Your task to perform on an android device: toggle javascript in the chrome app Image 0: 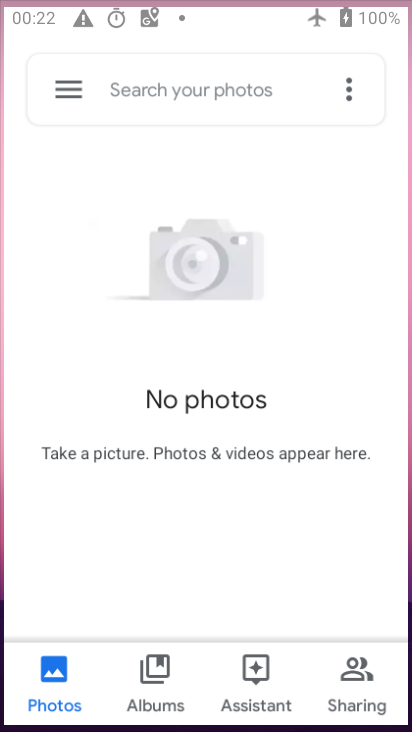
Step 0: drag from (306, 673) to (317, 234)
Your task to perform on an android device: toggle javascript in the chrome app Image 1: 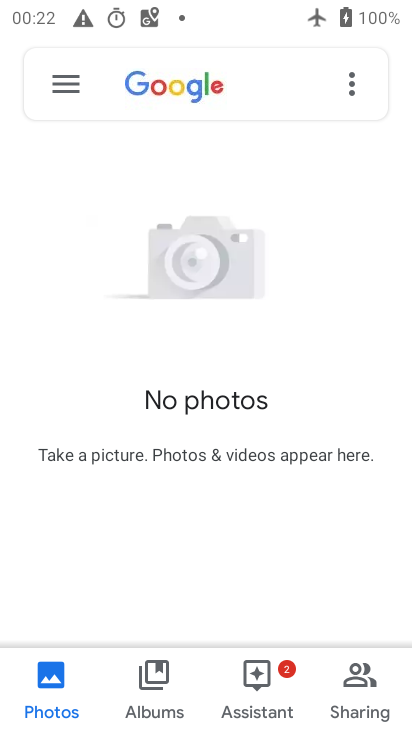
Step 1: press back button
Your task to perform on an android device: toggle javascript in the chrome app Image 2: 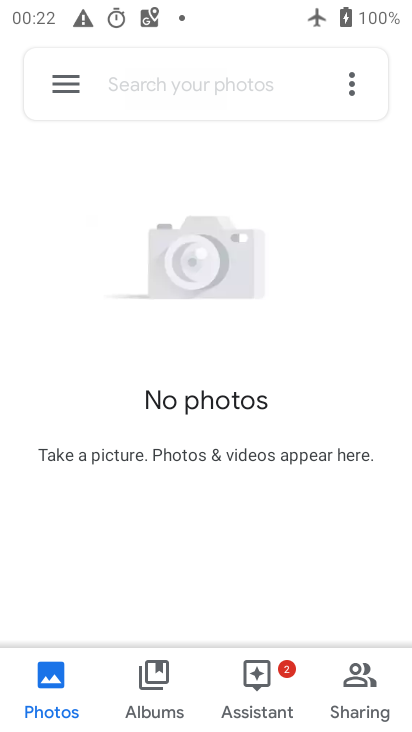
Step 2: press back button
Your task to perform on an android device: toggle javascript in the chrome app Image 3: 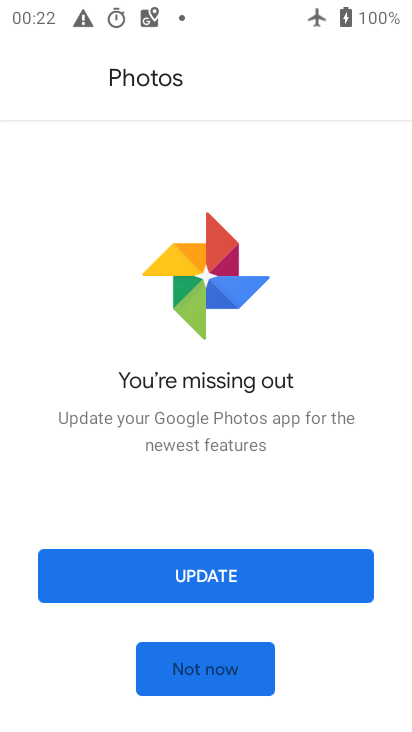
Step 3: press back button
Your task to perform on an android device: toggle javascript in the chrome app Image 4: 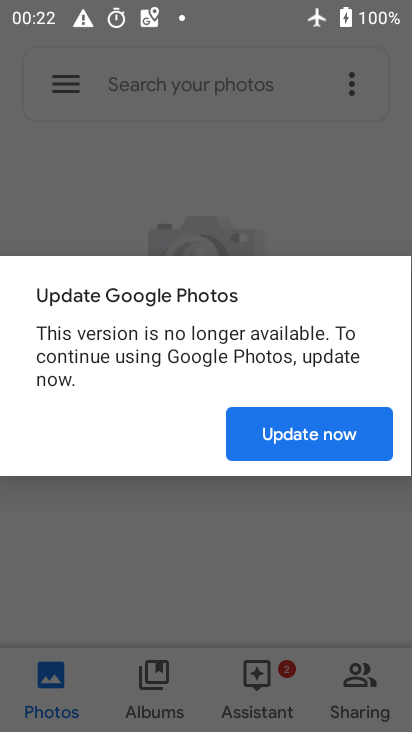
Step 4: press home button
Your task to perform on an android device: toggle javascript in the chrome app Image 5: 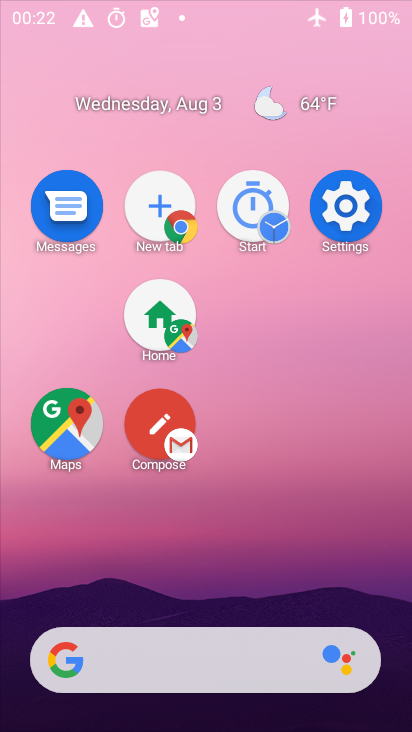
Step 5: press back button
Your task to perform on an android device: toggle javascript in the chrome app Image 6: 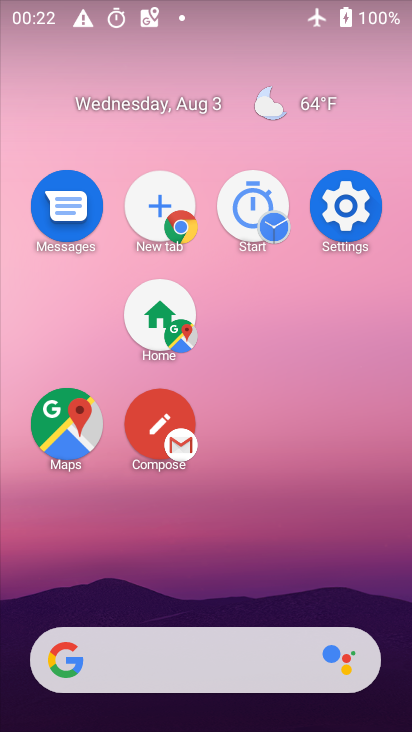
Step 6: drag from (233, 623) to (232, 129)
Your task to perform on an android device: toggle javascript in the chrome app Image 7: 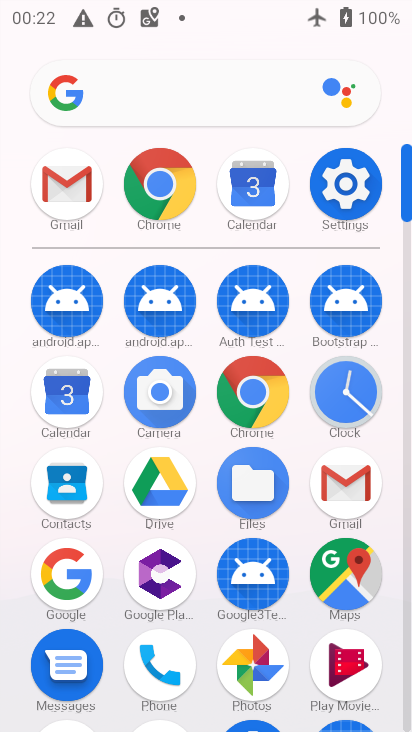
Step 7: click (164, 183)
Your task to perform on an android device: toggle javascript in the chrome app Image 8: 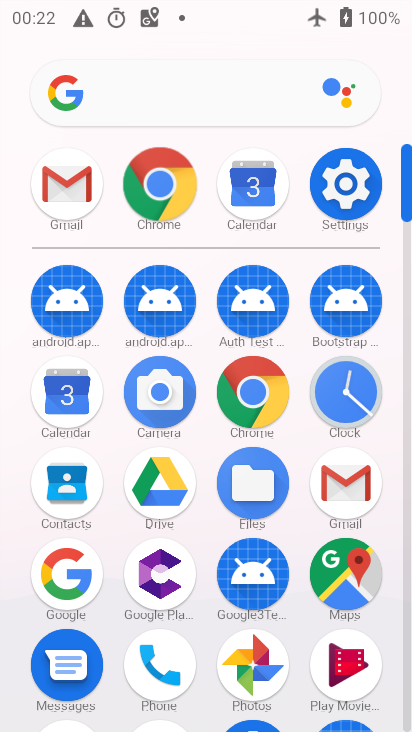
Step 8: click (164, 183)
Your task to perform on an android device: toggle javascript in the chrome app Image 9: 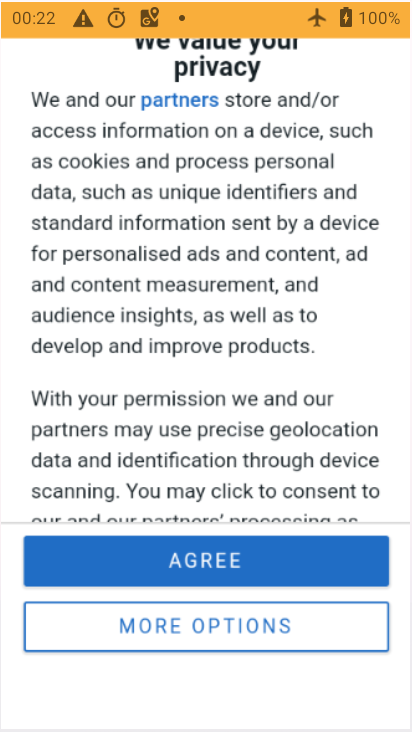
Step 9: click (164, 184)
Your task to perform on an android device: toggle javascript in the chrome app Image 10: 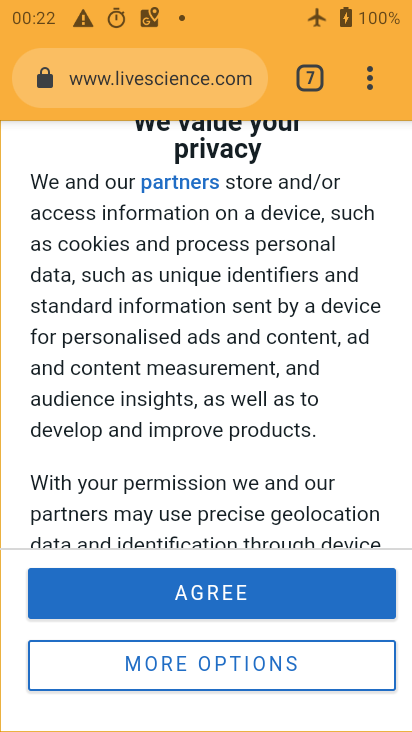
Step 10: drag from (367, 82) to (74, 609)
Your task to perform on an android device: toggle javascript in the chrome app Image 11: 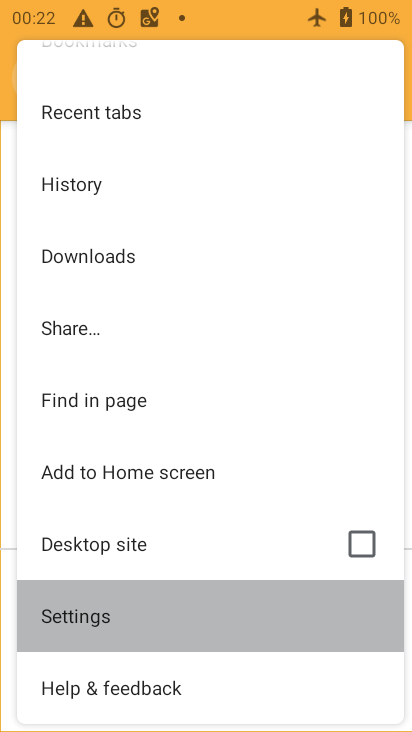
Step 11: click (76, 609)
Your task to perform on an android device: toggle javascript in the chrome app Image 12: 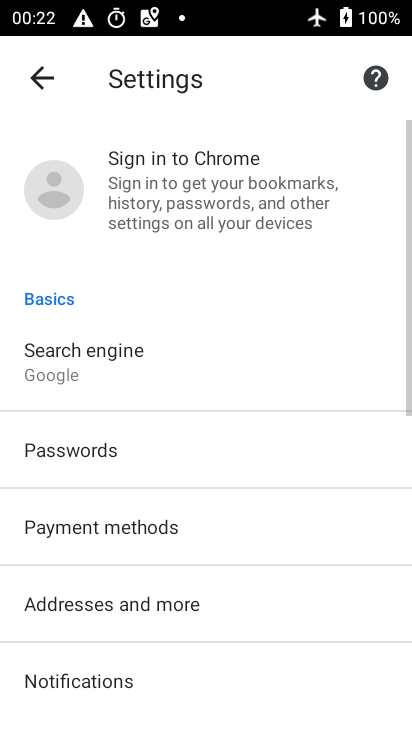
Step 12: drag from (176, 523) to (126, 130)
Your task to perform on an android device: toggle javascript in the chrome app Image 13: 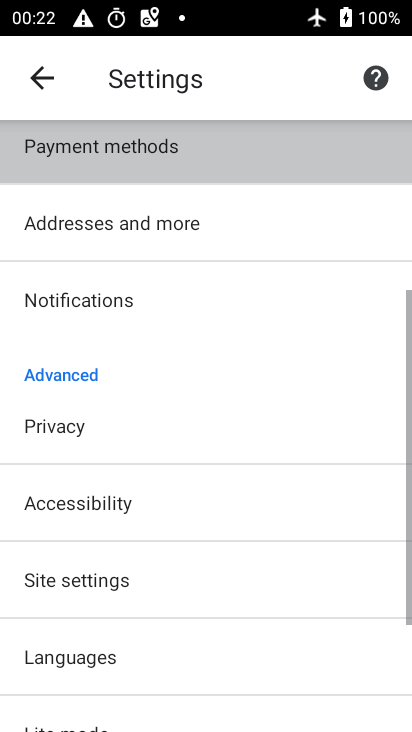
Step 13: drag from (124, 448) to (125, 159)
Your task to perform on an android device: toggle javascript in the chrome app Image 14: 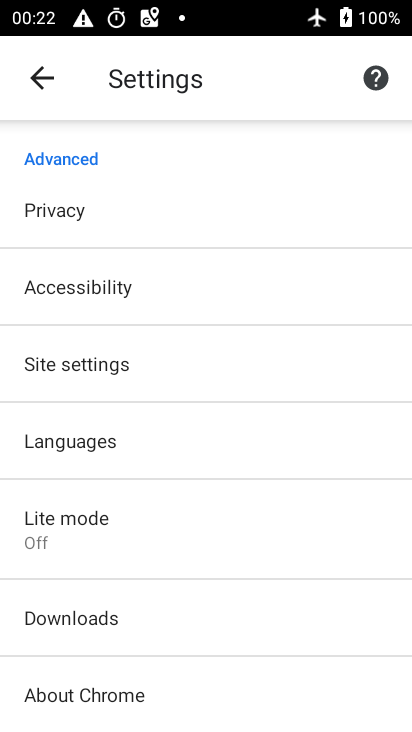
Step 14: click (62, 585)
Your task to perform on an android device: toggle javascript in the chrome app Image 15: 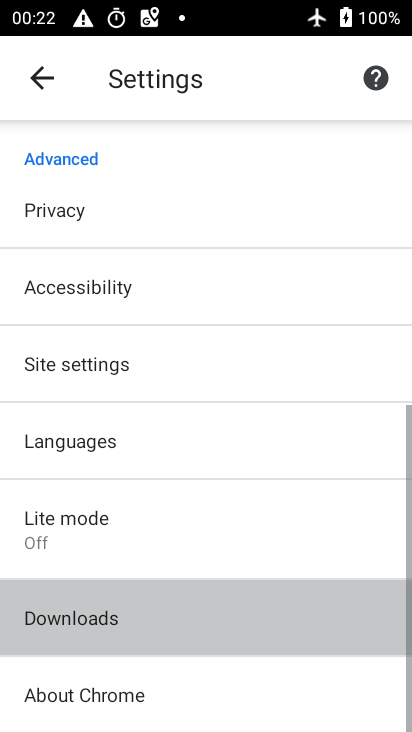
Step 15: click (62, 584)
Your task to perform on an android device: toggle javascript in the chrome app Image 16: 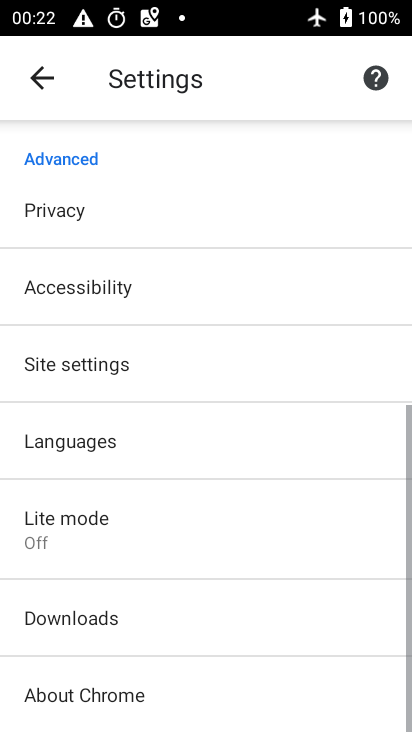
Step 16: click (63, 582)
Your task to perform on an android device: toggle javascript in the chrome app Image 17: 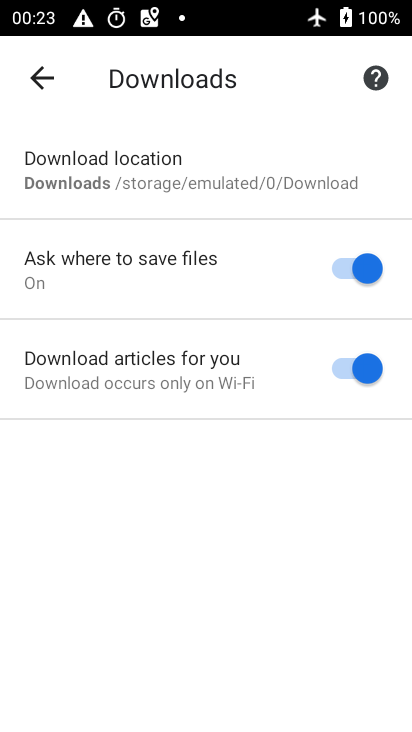
Step 17: click (40, 87)
Your task to perform on an android device: toggle javascript in the chrome app Image 18: 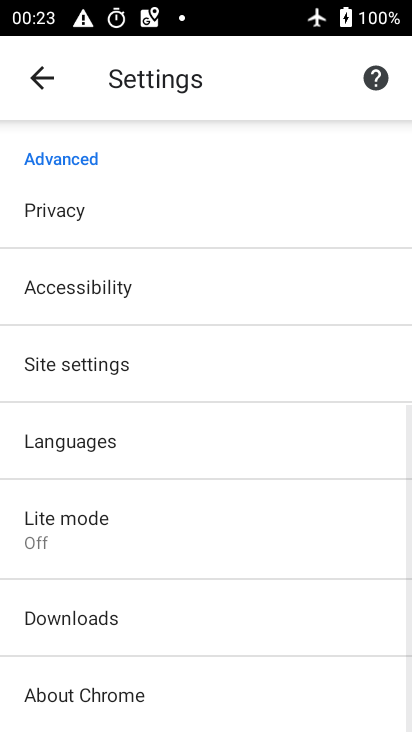
Step 18: drag from (87, 374) to (71, 172)
Your task to perform on an android device: toggle javascript in the chrome app Image 19: 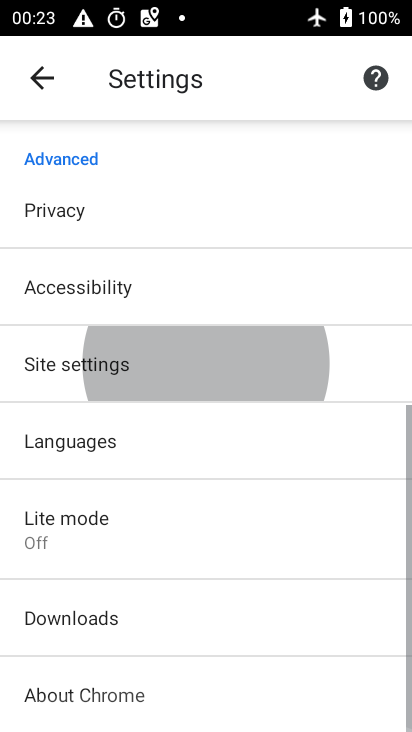
Step 19: drag from (145, 473) to (130, 143)
Your task to perform on an android device: toggle javascript in the chrome app Image 20: 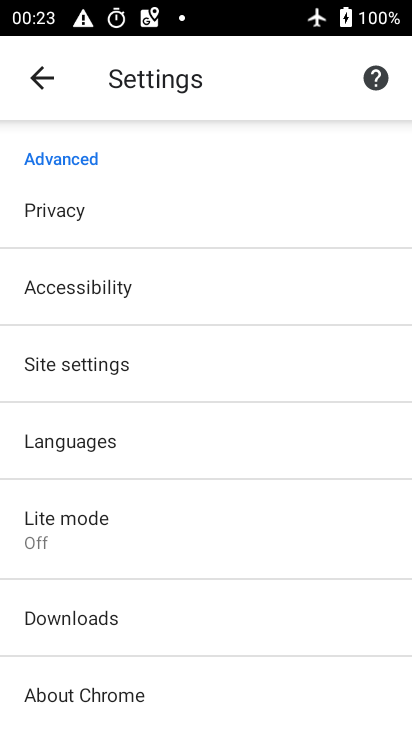
Step 20: click (66, 351)
Your task to perform on an android device: toggle javascript in the chrome app Image 21: 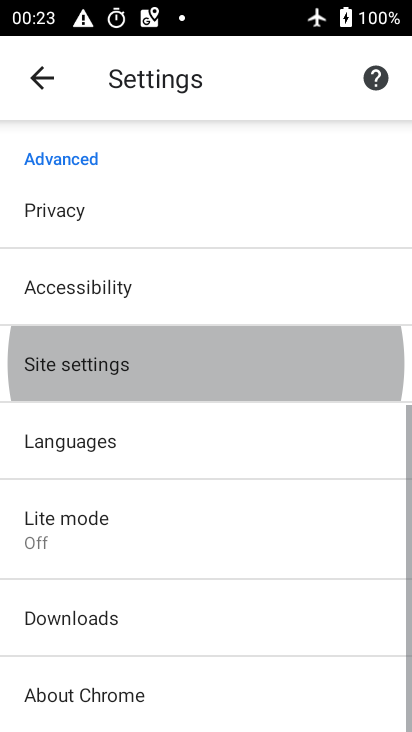
Step 21: click (64, 350)
Your task to perform on an android device: toggle javascript in the chrome app Image 22: 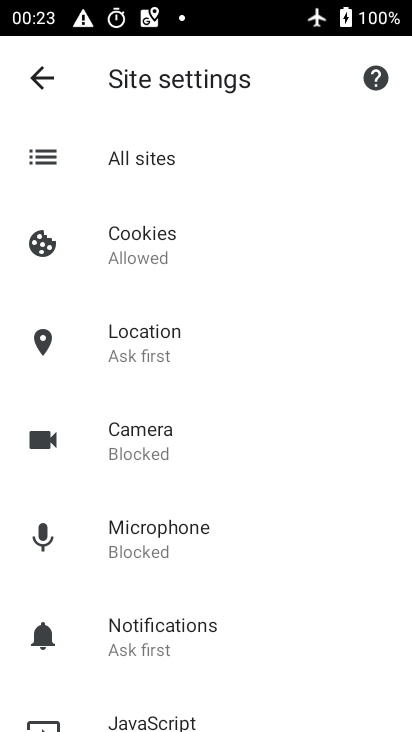
Step 22: click (133, 711)
Your task to perform on an android device: toggle javascript in the chrome app Image 23: 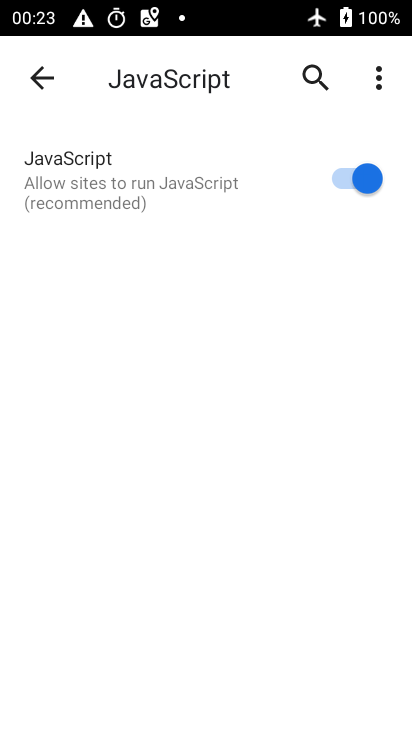
Step 23: task complete